Your task to perform on an android device: install app "Walmart Shopping & Grocery" Image 0: 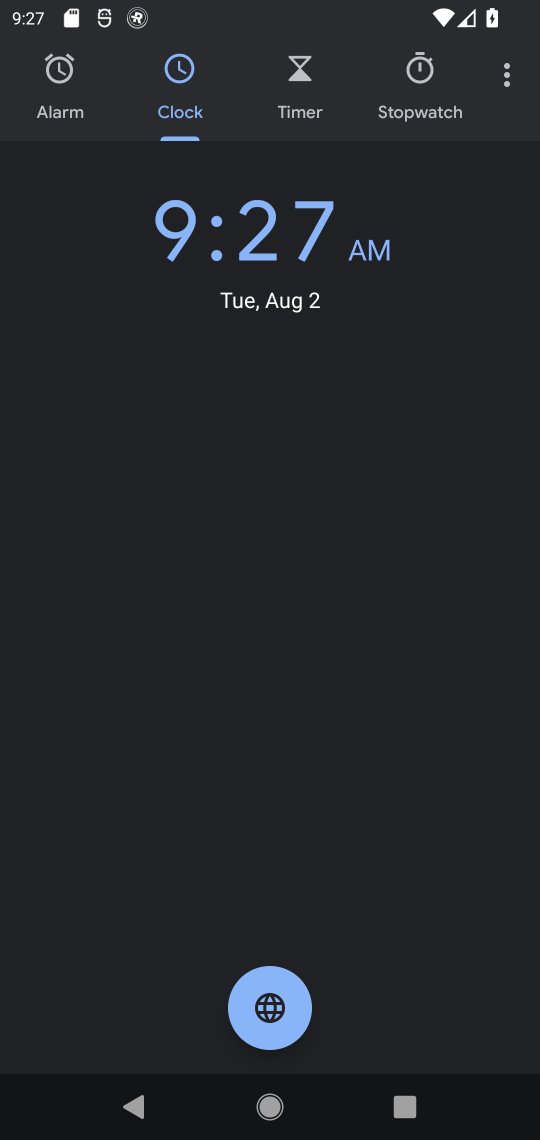
Step 0: press home button
Your task to perform on an android device: install app "Walmart Shopping & Grocery" Image 1: 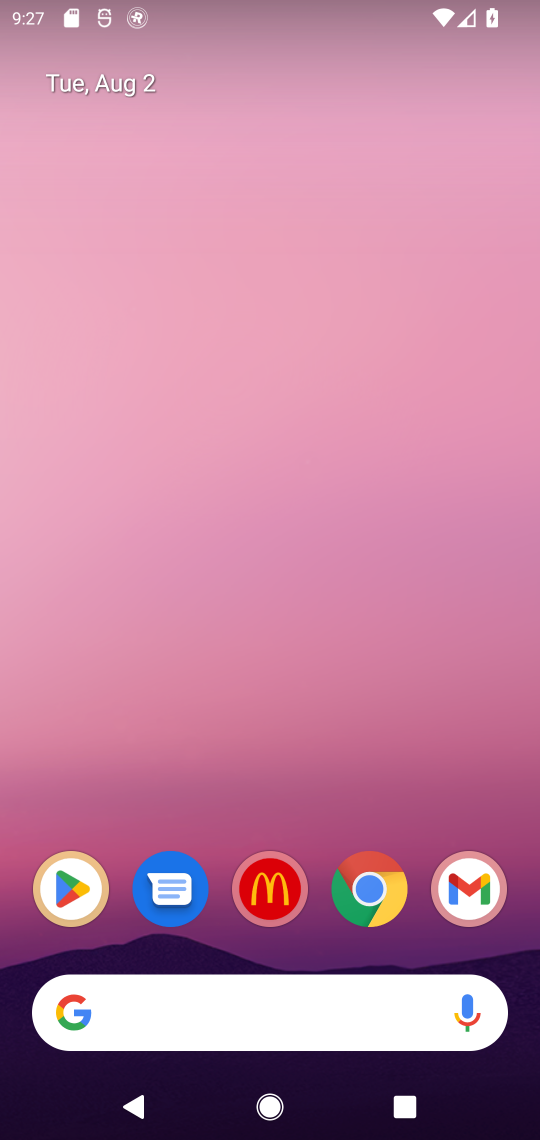
Step 1: click (59, 906)
Your task to perform on an android device: install app "Walmart Shopping & Grocery" Image 2: 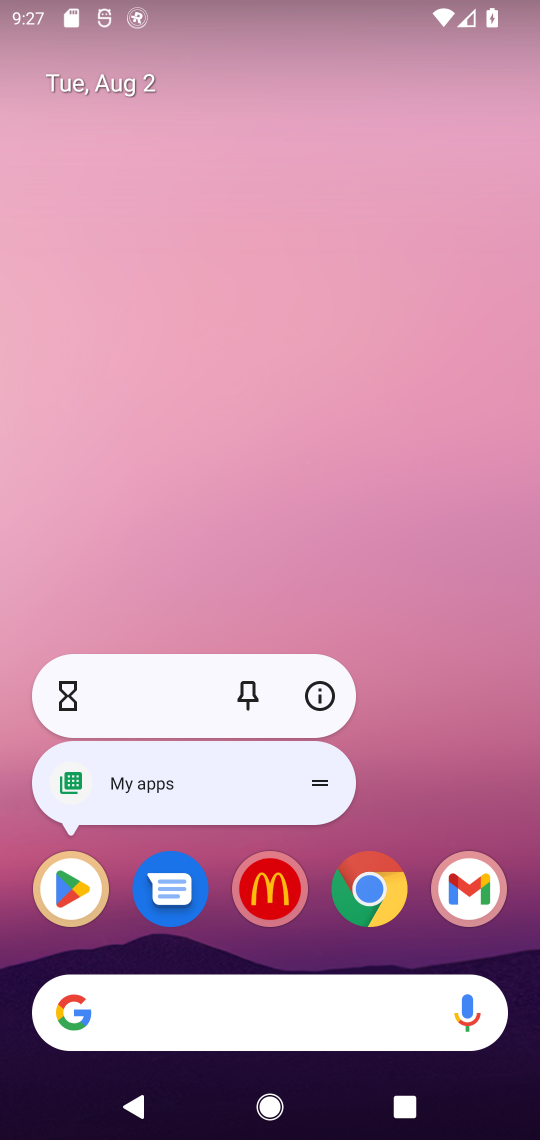
Step 2: click (67, 896)
Your task to perform on an android device: install app "Walmart Shopping & Grocery" Image 3: 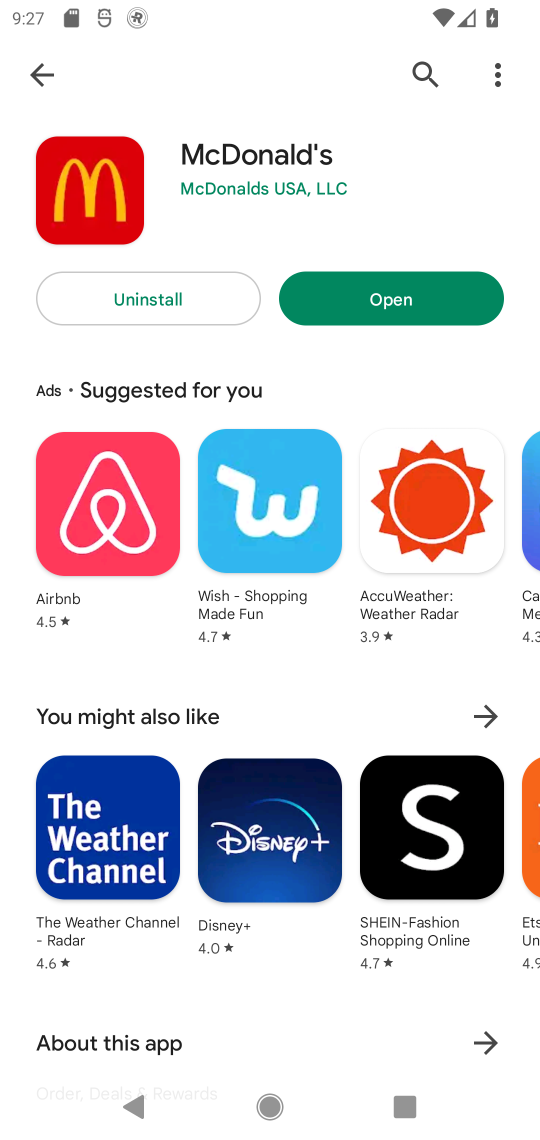
Step 3: click (421, 51)
Your task to perform on an android device: install app "Walmart Shopping & Grocery" Image 4: 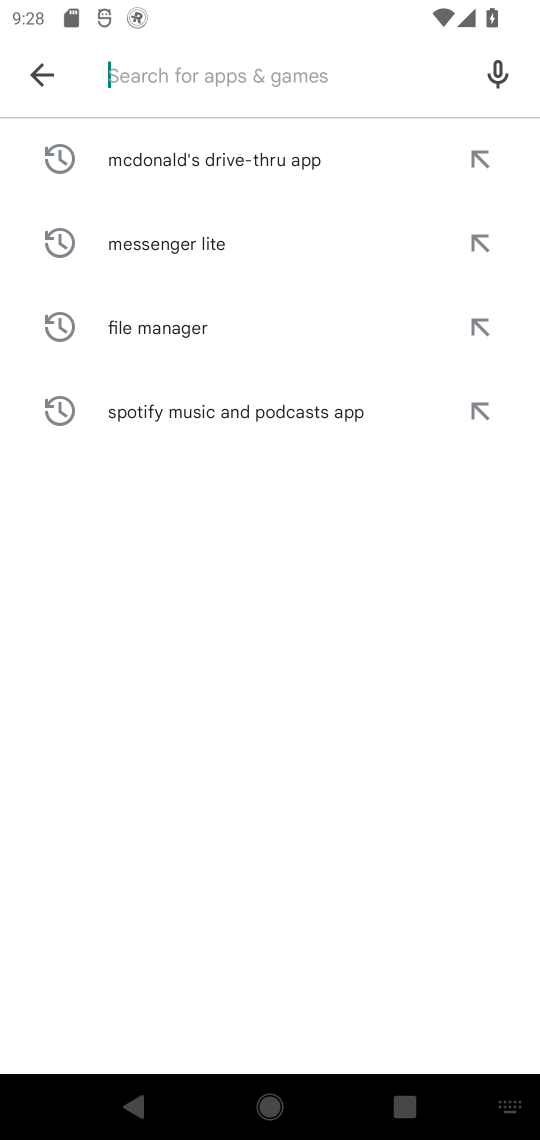
Step 4: type "Walmart Shopping & Grocery"
Your task to perform on an android device: install app "Walmart Shopping & Grocery" Image 5: 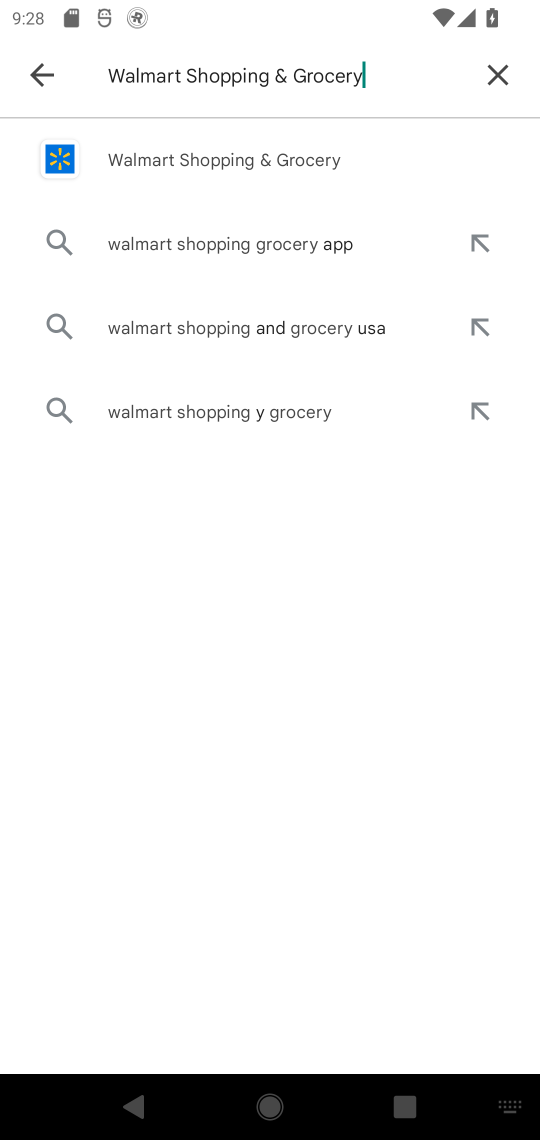
Step 5: click (271, 158)
Your task to perform on an android device: install app "Walmart Shopping & Grocery" Image 6: 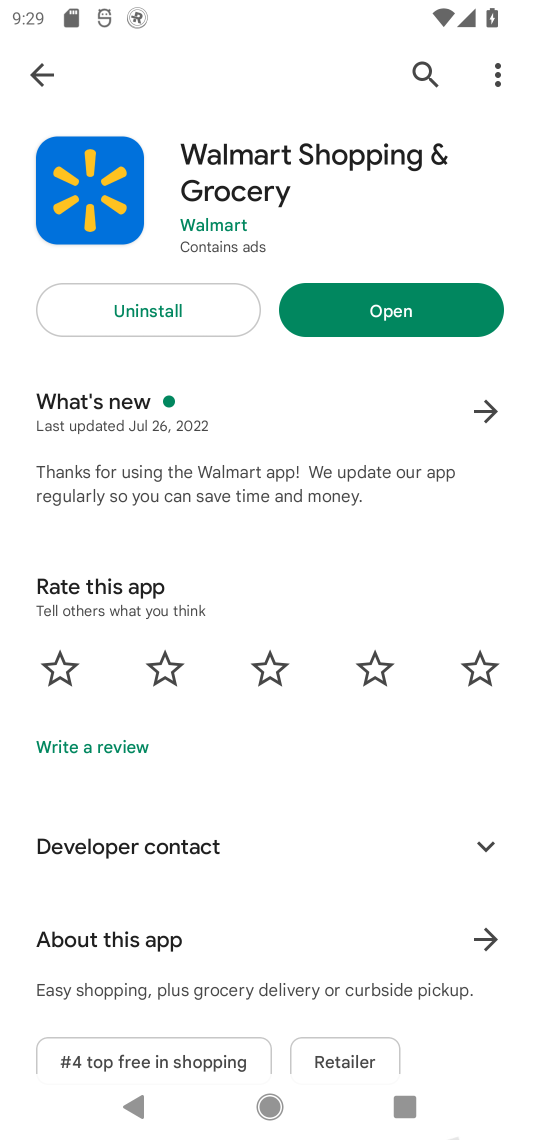
Step 6: task complete